Your task to perform on an android device: show emergency info Image 0: 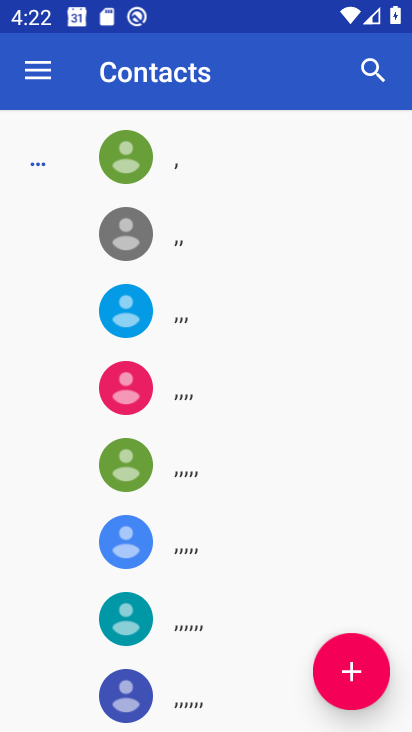
Step 0: press home button
Your task to perform on an android device: show emergency info Image 1: 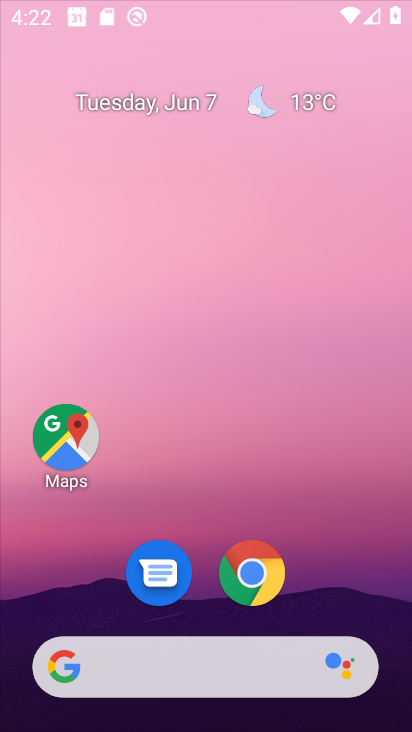
Step 1: press home button
Your task to perform on an android device: show emergency info Image 2: 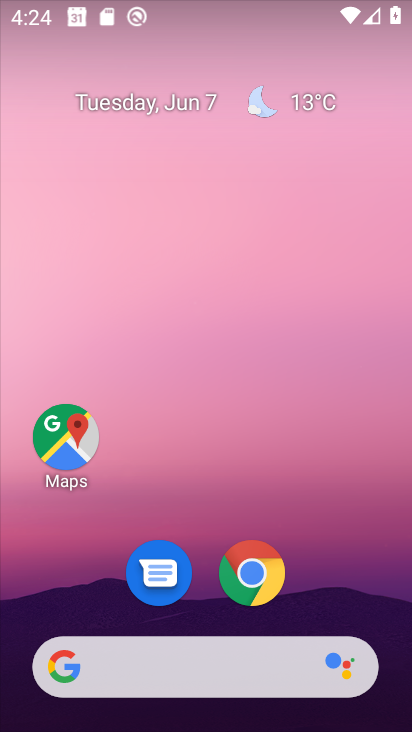
Step 2: drag from (376, 666) to (322, 43)
Your task to perform on an android device: show emergency info Image 3: 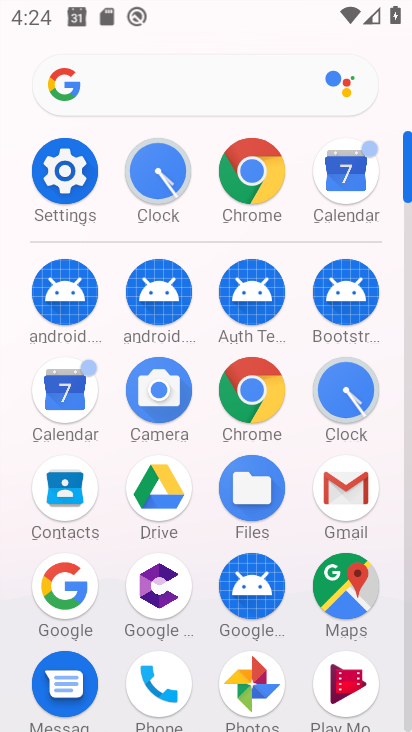
Step 3: click (39, 174)
Your task to perform on an android device: show emergency info Image 4: 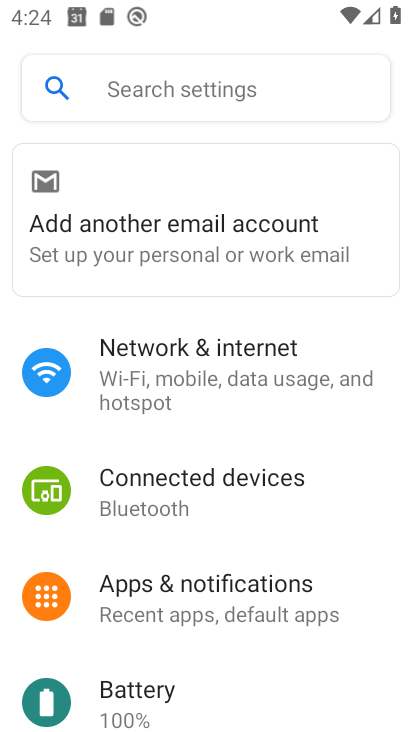
Step 4: drag from (135, 659) to (201, 165)
Your task to perform on an android device: show emergency info Image 5: 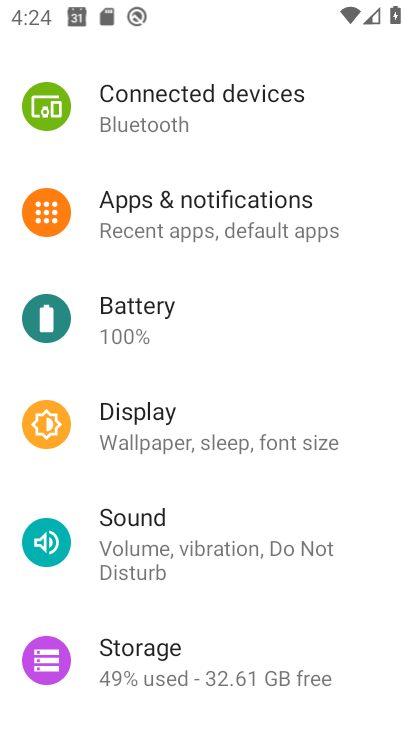
Step 5: drag from (179, 430) to (228, 42)
Your task to perform on an android device: show emergency info Image 6: 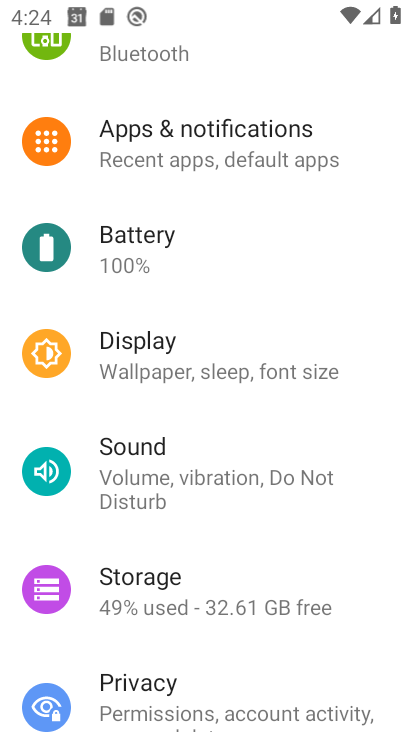
Step 6: drag from (176, 464) to (242, 92)
Your task to perform on an android device: show emergency info Image 7: 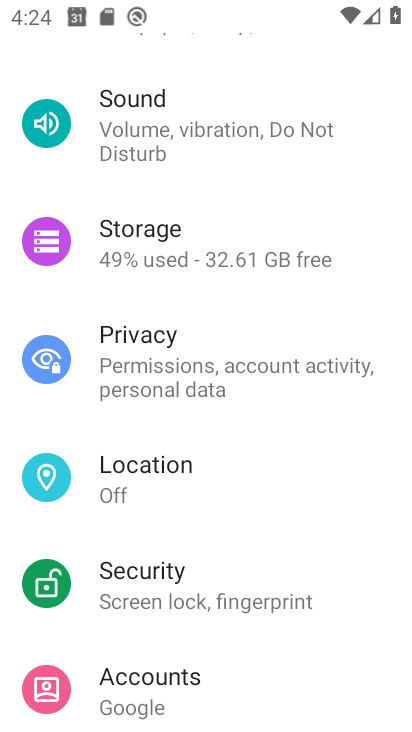
Step 7: drag from (205, 551) to (250, 61)
Your task to perform on an android device: show emergency info Image 8: 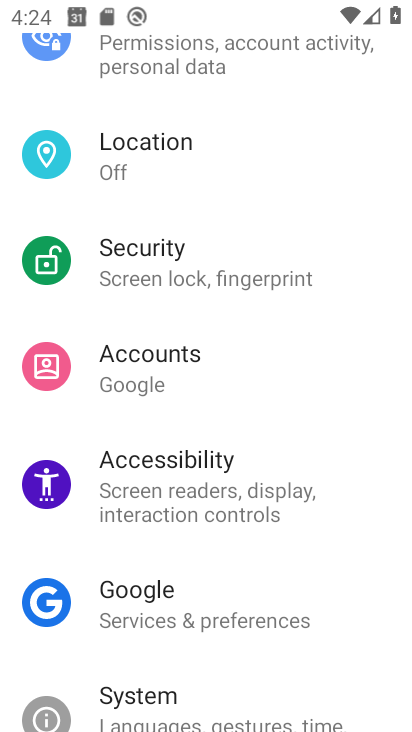
Step 8: drag from (208, 599) to (226, 44)
Your task to perform on an android device: show emergency info Image 9: 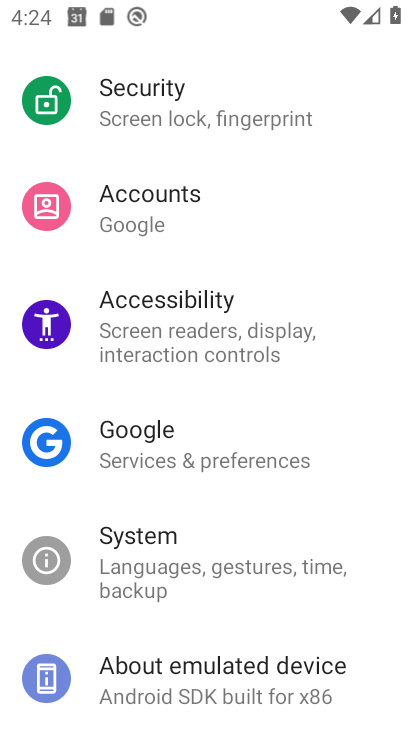
Step 9: click (152, 661)
Your task to perform on an android device: show emergency info Image 10: 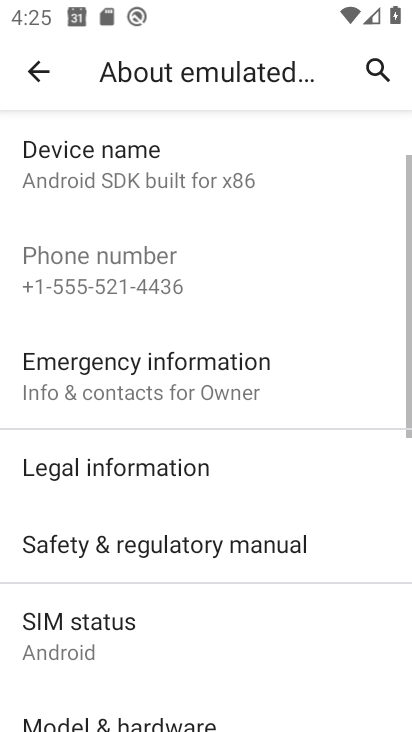
Step 10: click (73, 373)
Your task to perform on an android device: show emergency info Image 11: 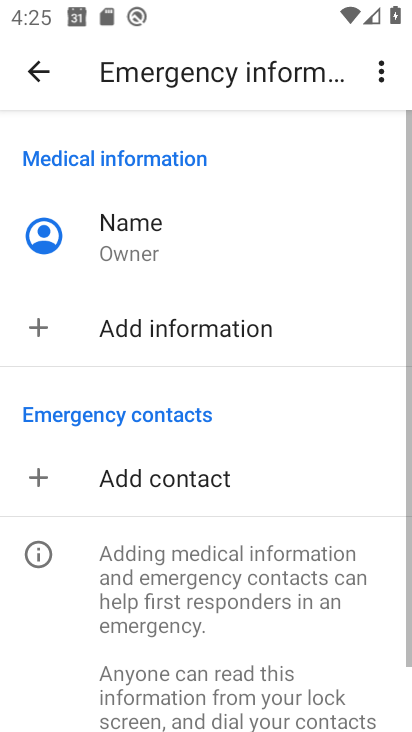
Step 11: task complete